Your task to perform on an android device: Check the weather Image 0: 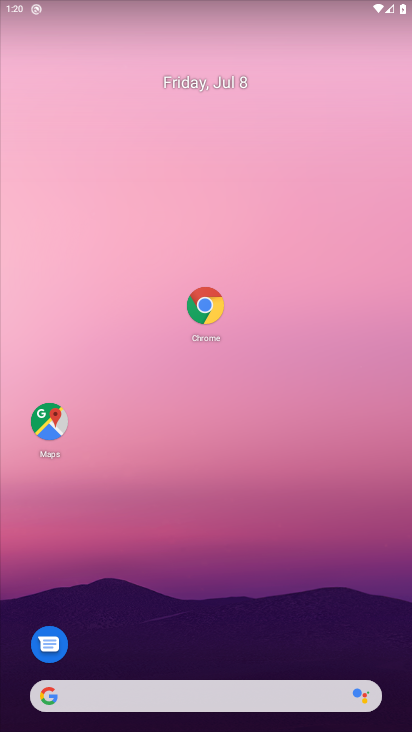
Step 0: drag from (215, 601) to (196, 169)
Your task to perform on an android device: Check the weather Image 1: 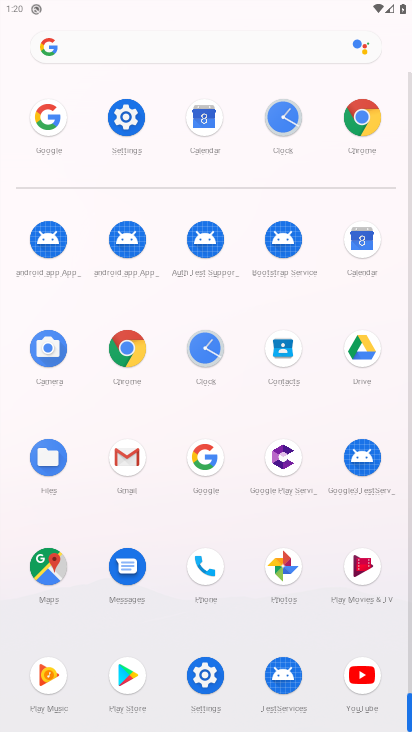
Step 1: click (215, 451)
Your task to perform on an android device: Check the weather Image 2: 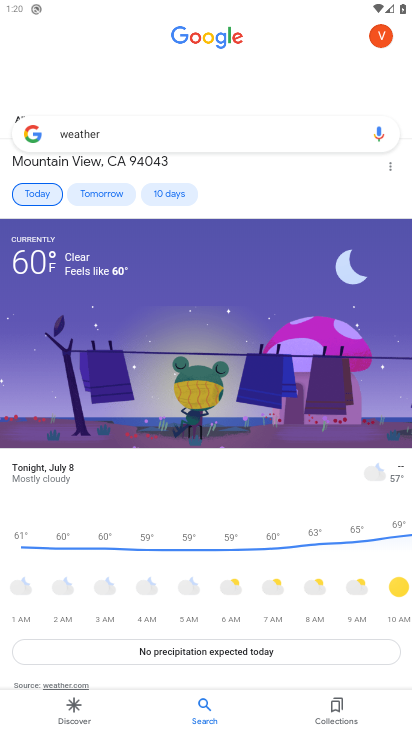
Step 2: task complete